Your task to perform on an android device: Search for vegetarian restaurants on Maps Image 0: 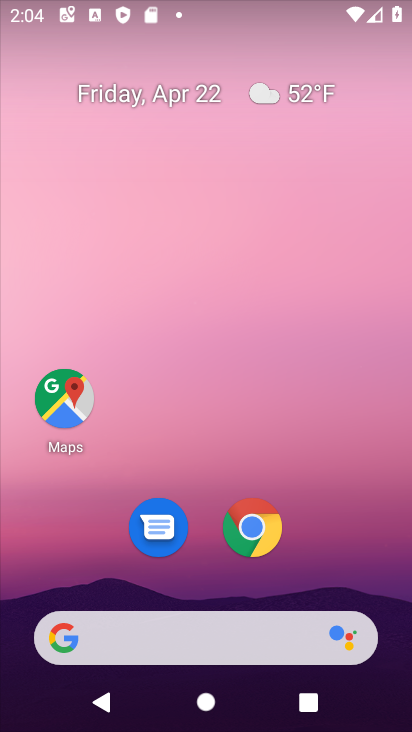
Step 0: drag from (345, 505) to (411, 142)
Your task to perform on an android device: Search for vegetarian restaurants on Maps Image 1: 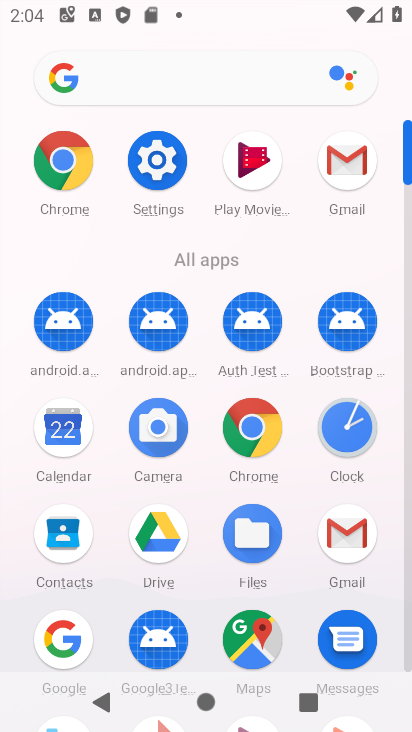
Step 1: click (262, 635)
Your task to perform on an android device: Search for vegetarian restaurants on Maps Image 2: 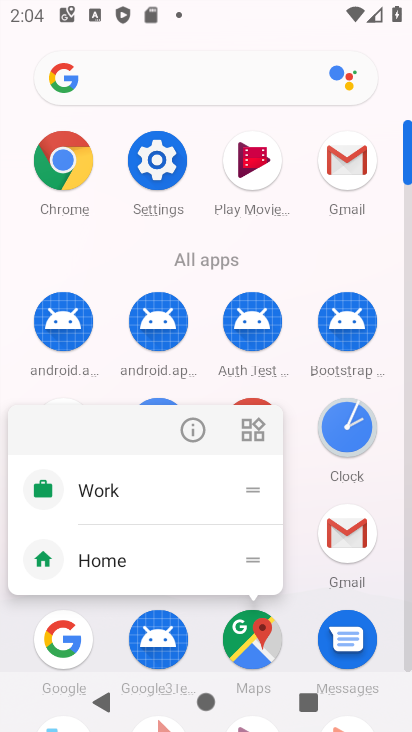
Step 2: click (262, 635)
Your task to perform on an android device: Search for vegetarian restaurants on Maps Image 3: 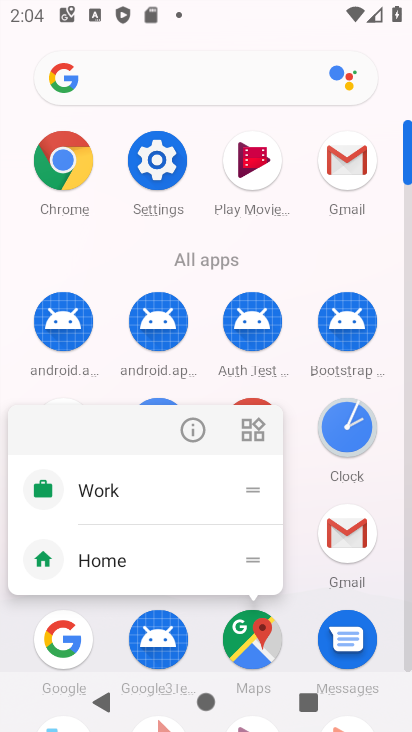
Step 3: click (262, 633)
Your task to perform on an android device: Search for vegetarian restaurants on Maps Image 4: 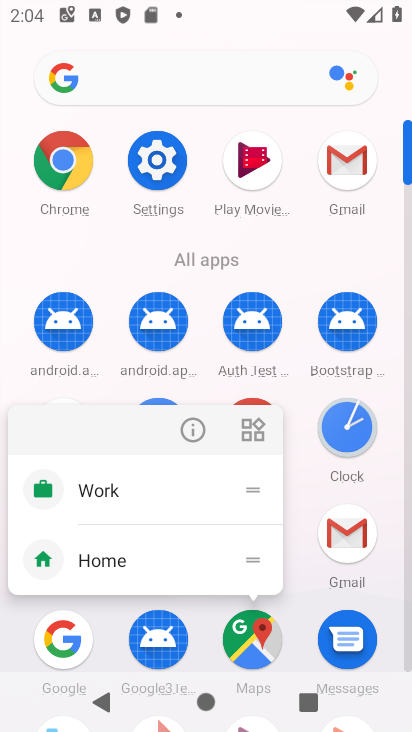
Step 4: click (262, 633)
Your task to perform on an android device: Search for vegetarian restaurants on Maps Image 5: 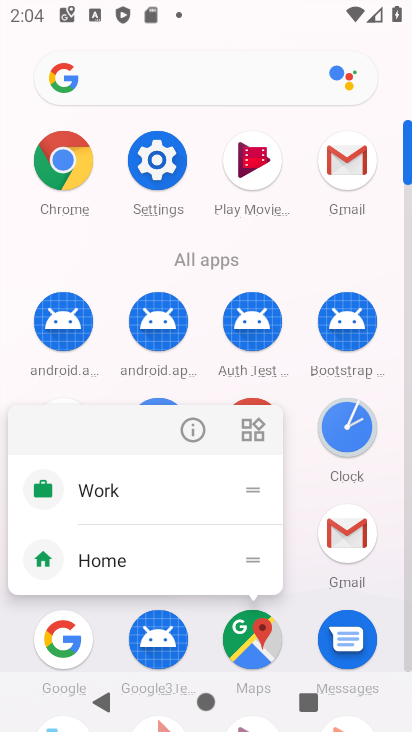
Step 5: click (262, 631)
Your task to perform on an android device: Search for vegetarian restaurants on Maps Image 6: 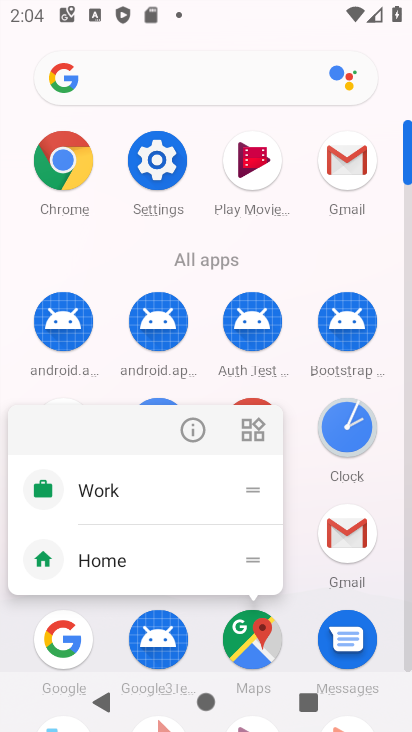
Step 6: click (262, 631)
Your task to perform on an android device: Search for vegetarian restaurants on Maps Image 7: 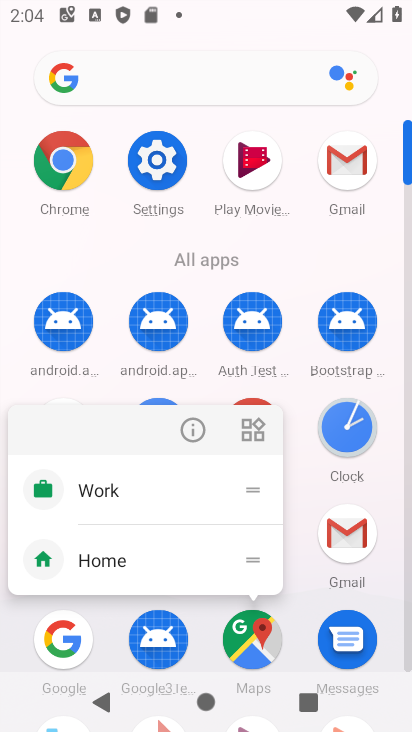
Step 7: click (262, 631)
Your task to perform on an android device: Search for vegetarian restaurants on Maps Image 8: 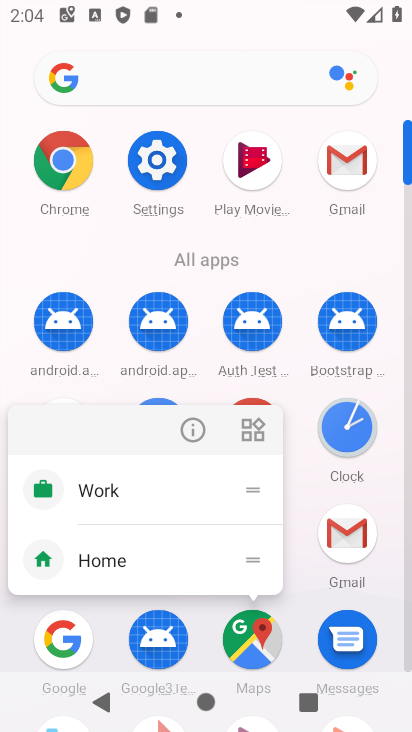
Step 8: click (262, 631)
Your task to perform on an android device: Search for vegetarian restaurants on Maps Image 9: 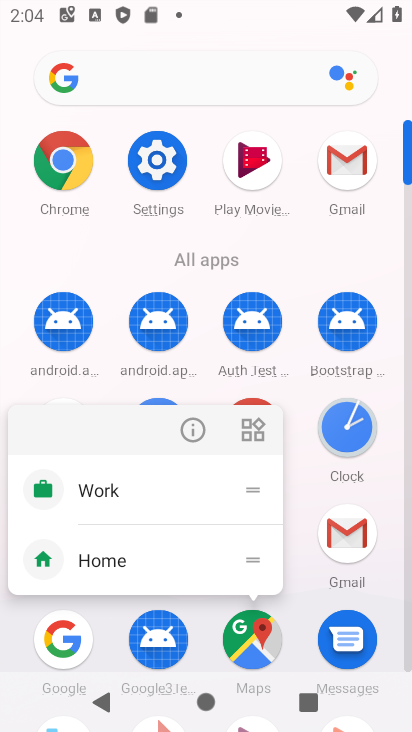
Step 9: click (261, 631)
Your task to perform on an android device: Search for vegetarian restaurants on Maps Image 10: 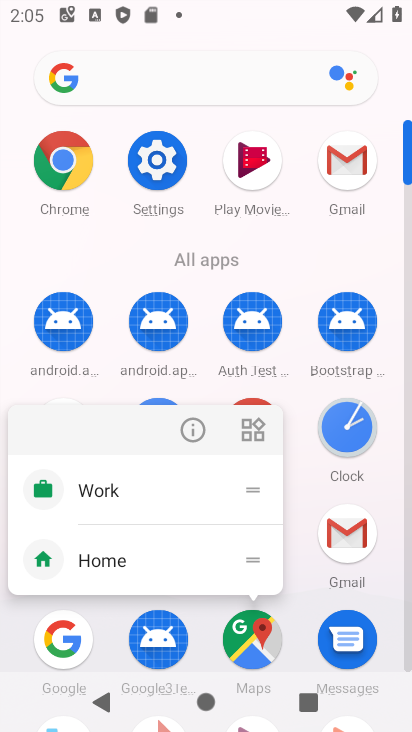
Step 10: click (261, 630)
Your task to perform on an android device: Search for vegetarian restaurants on Maps Image 11: 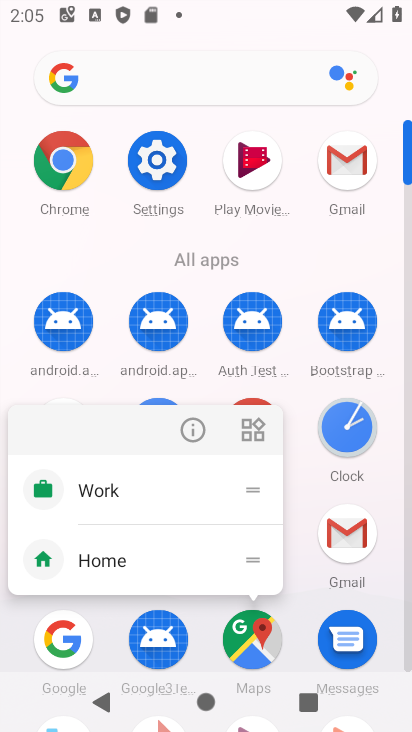
Step 11: click (261, 630)
Your task to perform on an android device: Search for vegetarian restaurants on Maps Image 12: 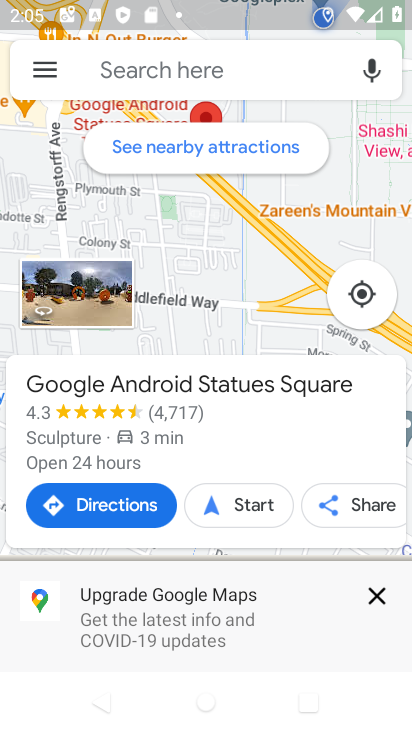
Step 12: click (185, 51)
Your task to perform on an android device: Search for vegetarian restaurants on Maps Image 13: 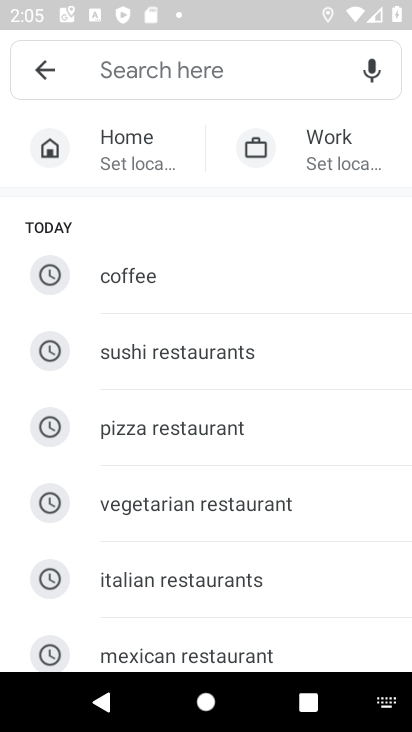
Step 13: click (185, 506)
Your task to perform on an android device: Search for vegetarian restaurants on Maps Image 14: 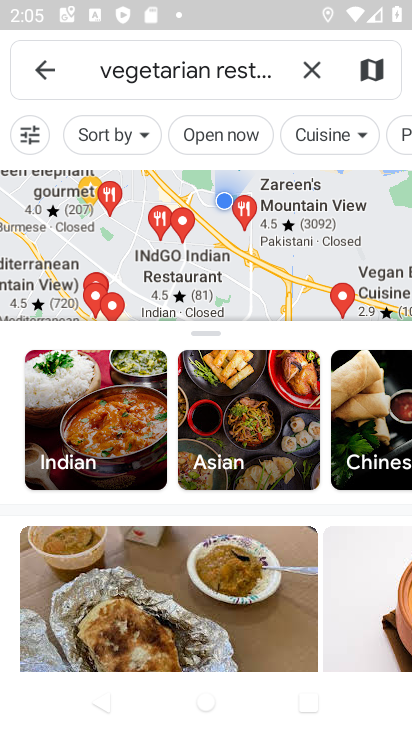
Step 14: task complete